Your task to perform on an android device: Go to battery settings Image 0: 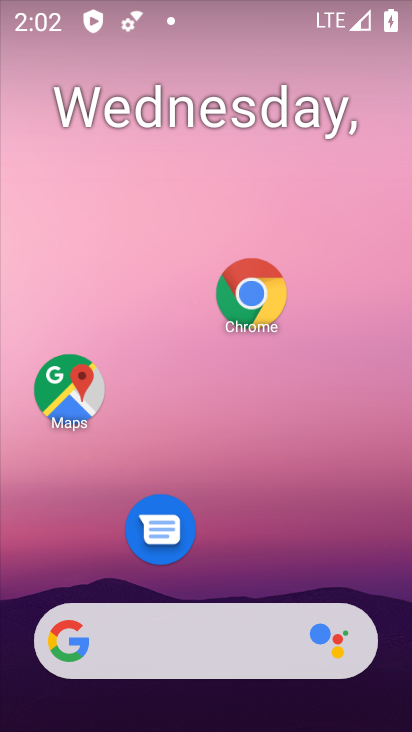
Step 0: drag from (349, 560) to (340, 299)
Your task to perform on an android device: Go to battery settings Image 1: 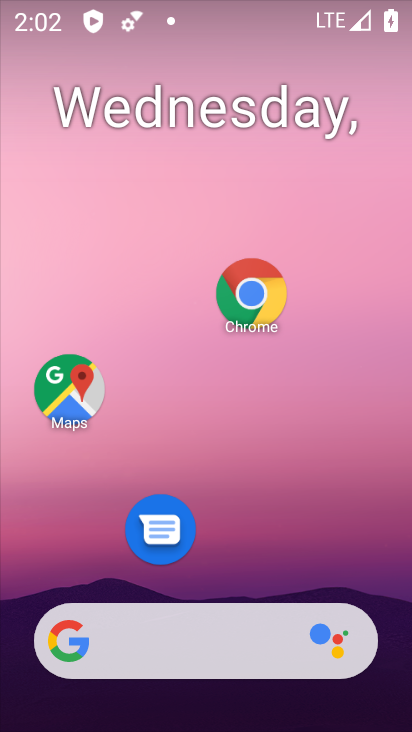
Step 1: drag from (301, 589) to (337, 183)
Your task to perform on an android device: Go to battery settings Image 2: 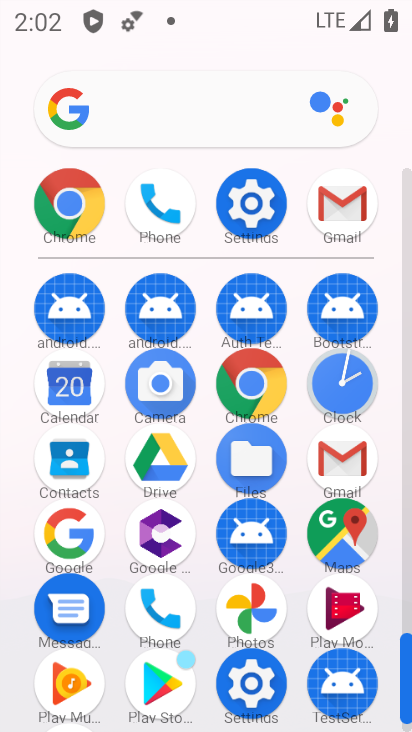
Step 2: click (261, 232)
Your task to perform on an android device: Go to battery settings Image 3: 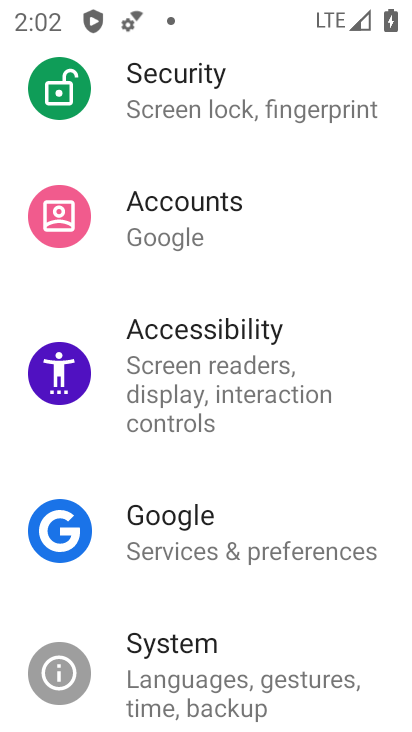
Step 3: drag from (261, 232) to (239, 528)
Your task to perform on an android device: Go to battery settings Image 4: 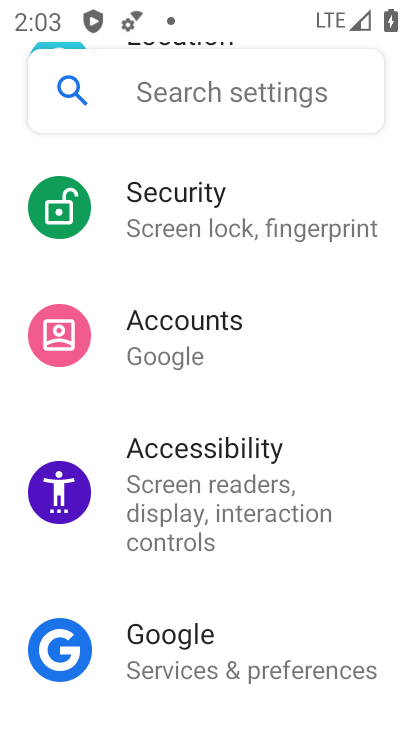
Step 4: drag from (279, 265) to (246, 594)
Your task to perform on an android device: Go to battery settings Image 5: 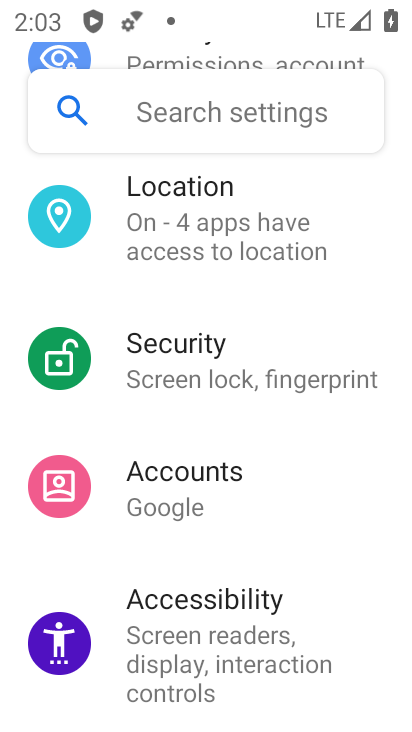
Step 5: drag from (291, 195) to (325, 497)
Your task to perform on an android device: Go to battery settings Image 6: 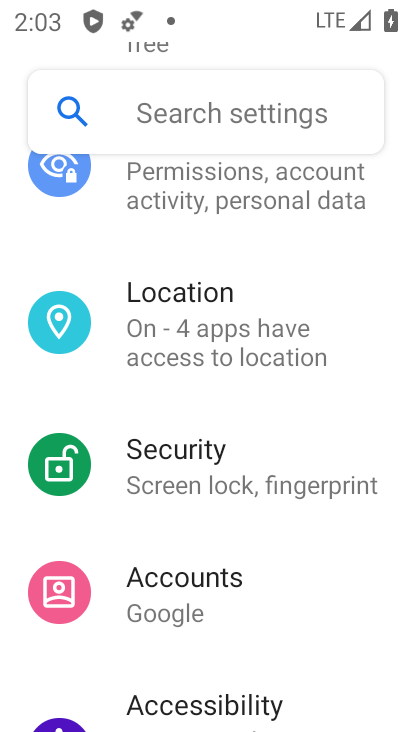
Step 6: drag from (289, 324) to (294, 723)
Your task to perform on an android device: Go to battery settings Image 7: 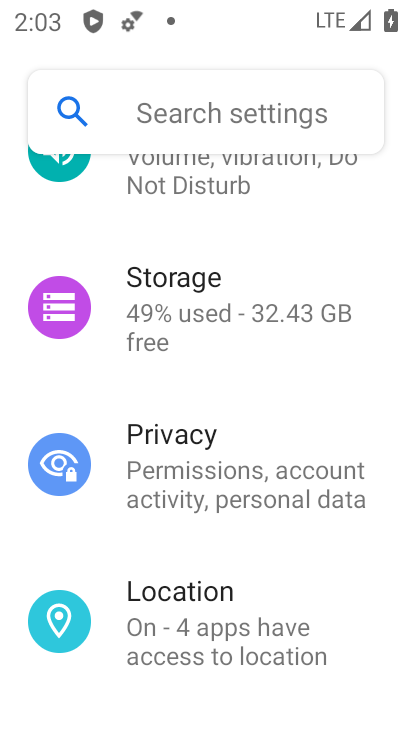
Step 7: drag from (198, 363) to (196, 685)
Your task to perform on an android device: Go to battery settings Image 8: 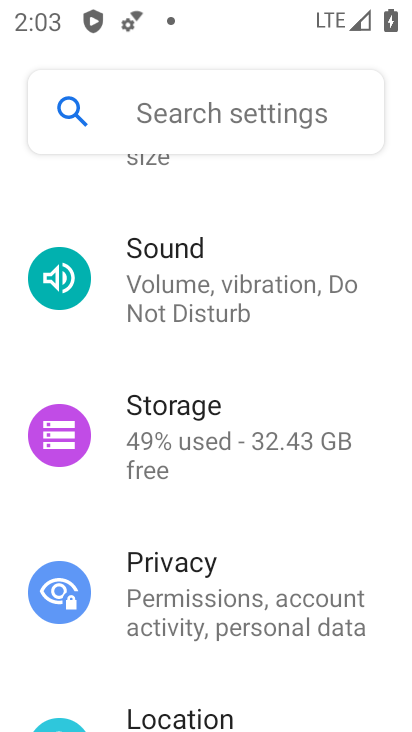
Step 8: drag from (251, 251) to (230, 648)
Your task to perform on an android device: Go to battery settings Image 9: 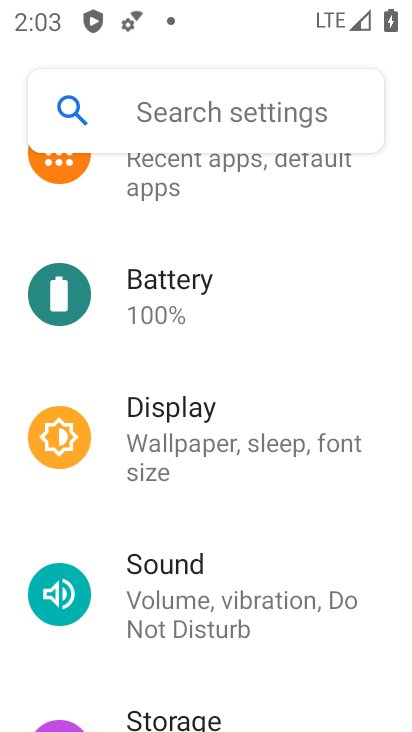
Step 9: click (268, 307)
Your task to perform on an android device: Go to battery settings Image 10: 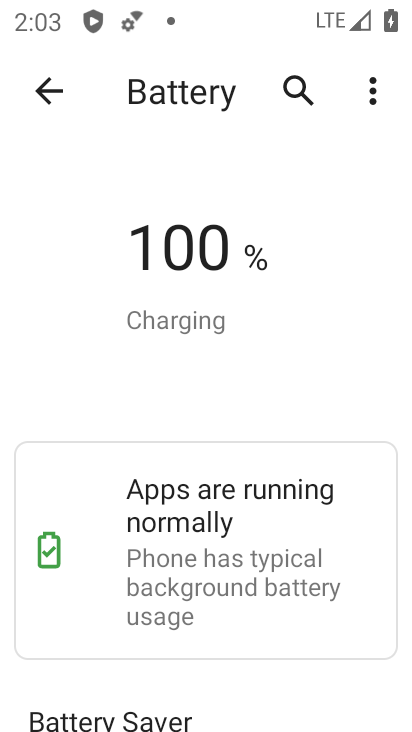
Step 10: task complete